Your task to perform on an android device: Open CNN.com Image 0: 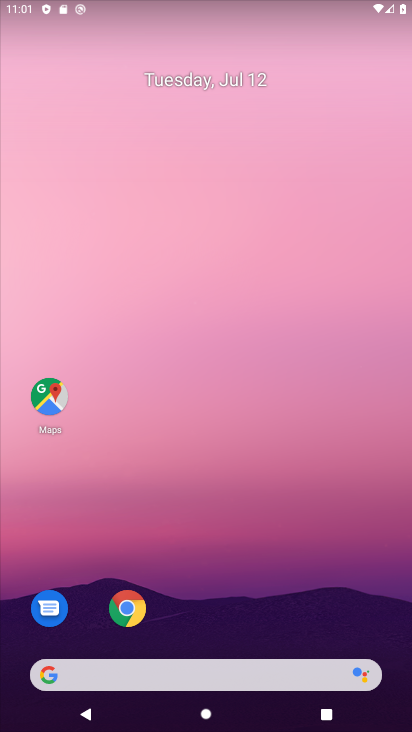
Step 0: click (201, 686)
Your task to perform on an android device: Open CNN.com Image 1: 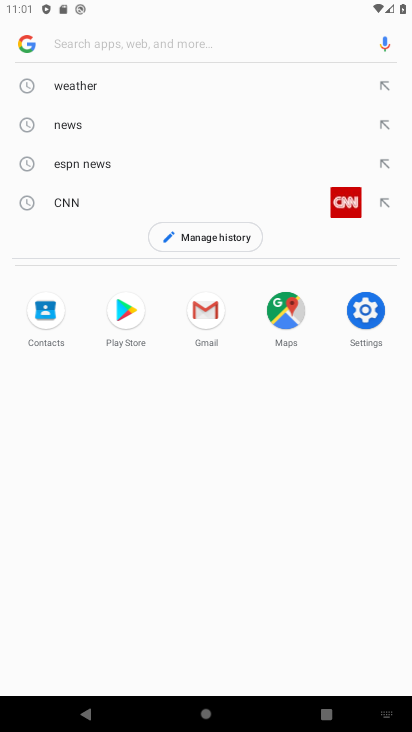
Step 1: click (62, 199)
Your task to perform on an android device: Open CNN.com Image 2: 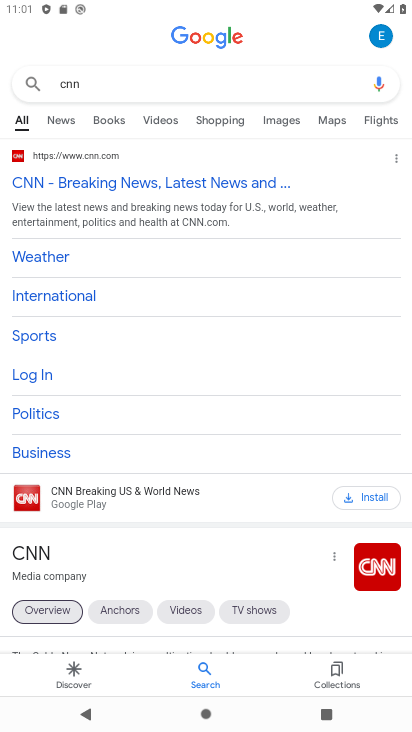
Step 2: click (36, 188)
Your task to perform on an android device: Open CNN.com Image 3: 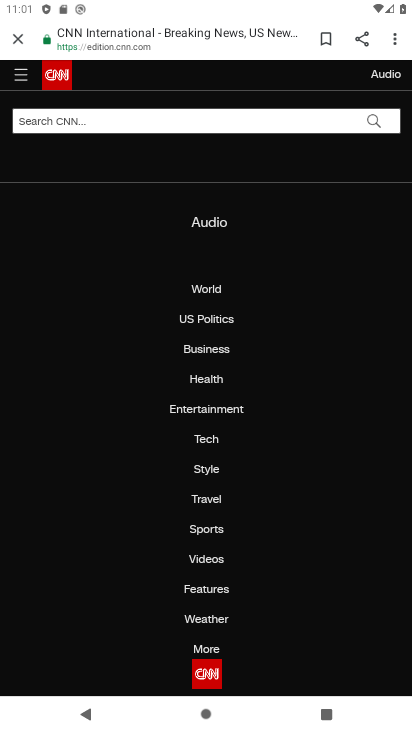
Step 3: task complete